Your task to perform on an android device: Go to Android settings Image 0: 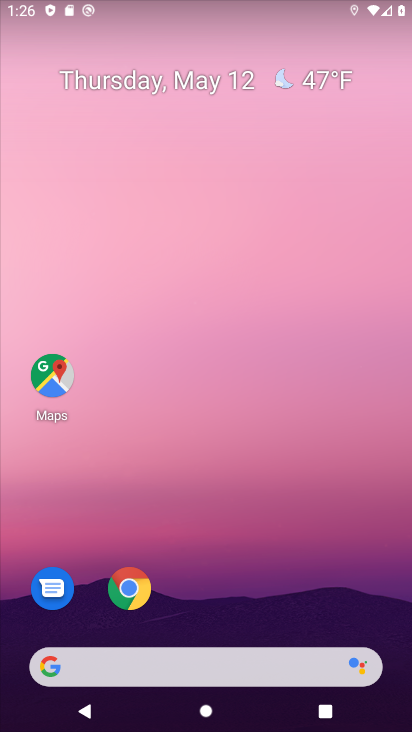
Step 0: drag from (389, 640) to (297, 119)
Your task to perform on an android device: Go to Android settings Image 1: 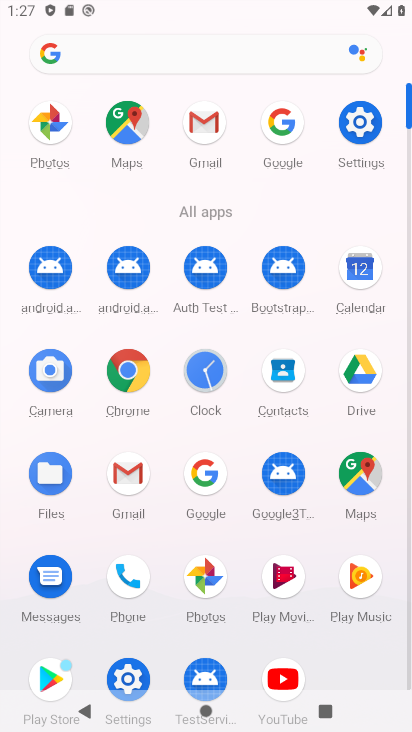
Step 1: click (133, 674)
Your task to perform on an android device: Go to Android settings Image 2: 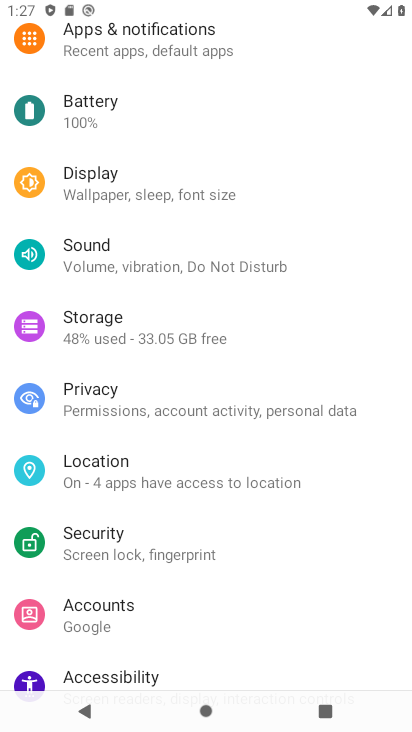
Step 2: drag from (248, 660) to (250, 85)
Your task to perform on an android device: Go to Android settings Image 3: 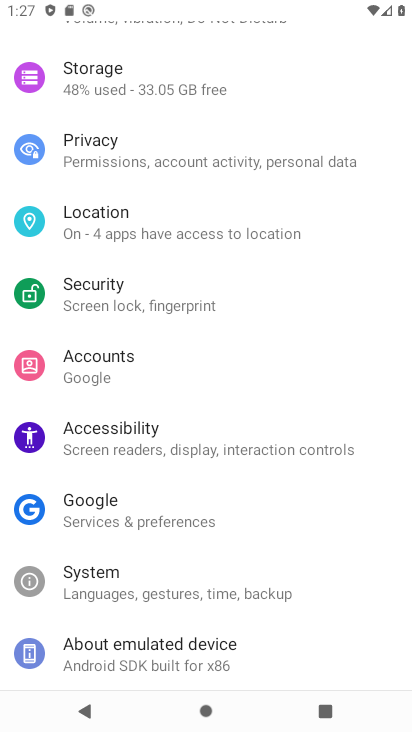
Step 3: click (205, 664)
Your task to perform on an android device: Go to Android settings Image 4: 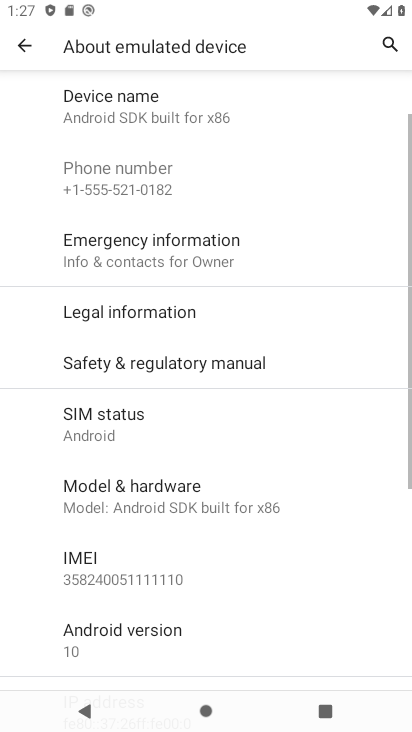
Step 4: click (209, 657)
Your task to perform on an android device: Go to Android settings Image 5: 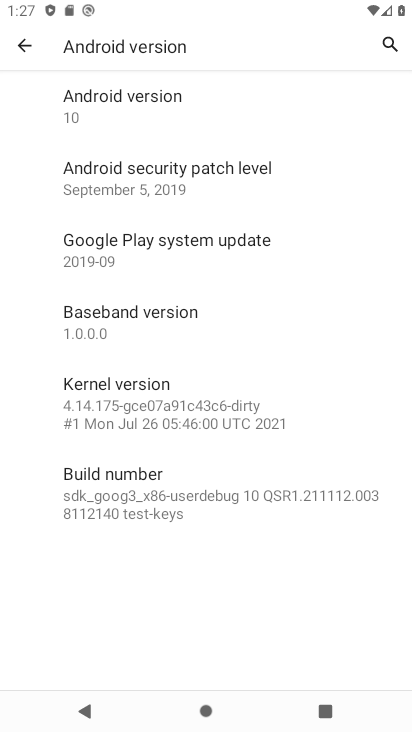
Step 5: task complete